Your task to perform on an android device: see sites visited before in the chrome app Image 0: 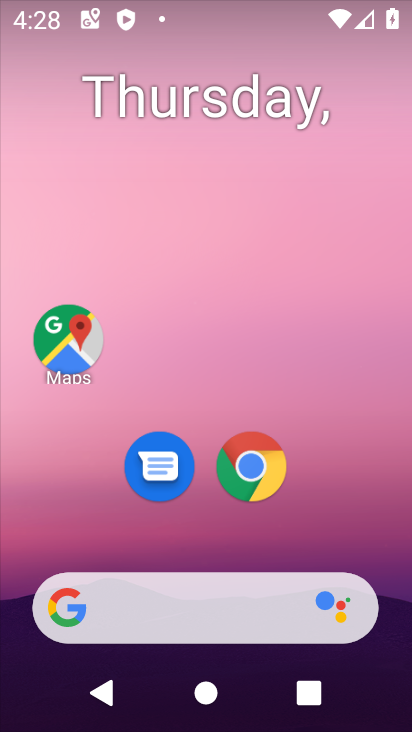
Step 0: click (243, 465)
Your task to perform on an android device: see sites visited before in the chrome app Image 1: 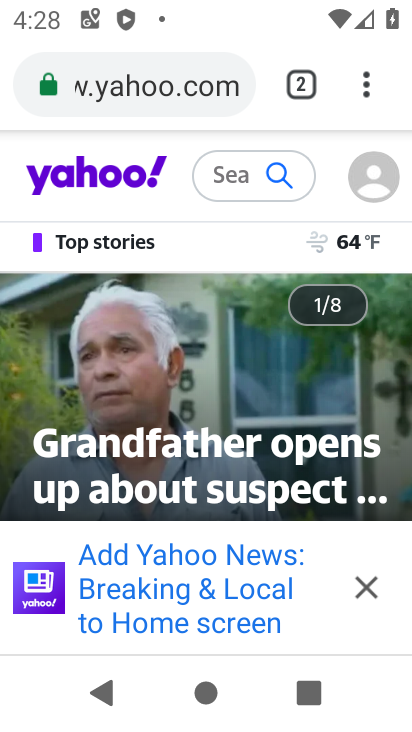
Step 1: click (362, 77)
Your task to perform on an android device: see sites visited before in the chrome app Image 2: 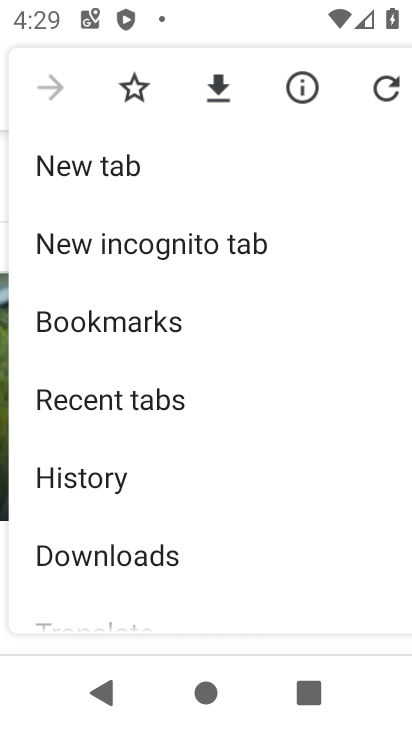
Step 2: click (134, 469)
Your task to perform on an android device: see sites visited before in the chrome app Image 3: 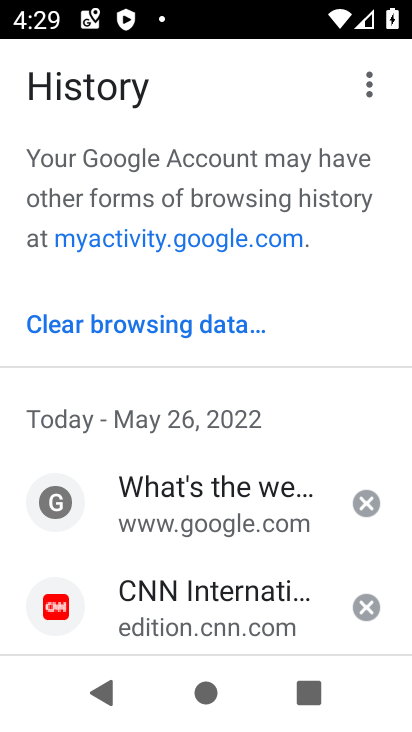
Step 3: task complete